Your task to perform on an android device: Google the capital of Mexico Image 0: 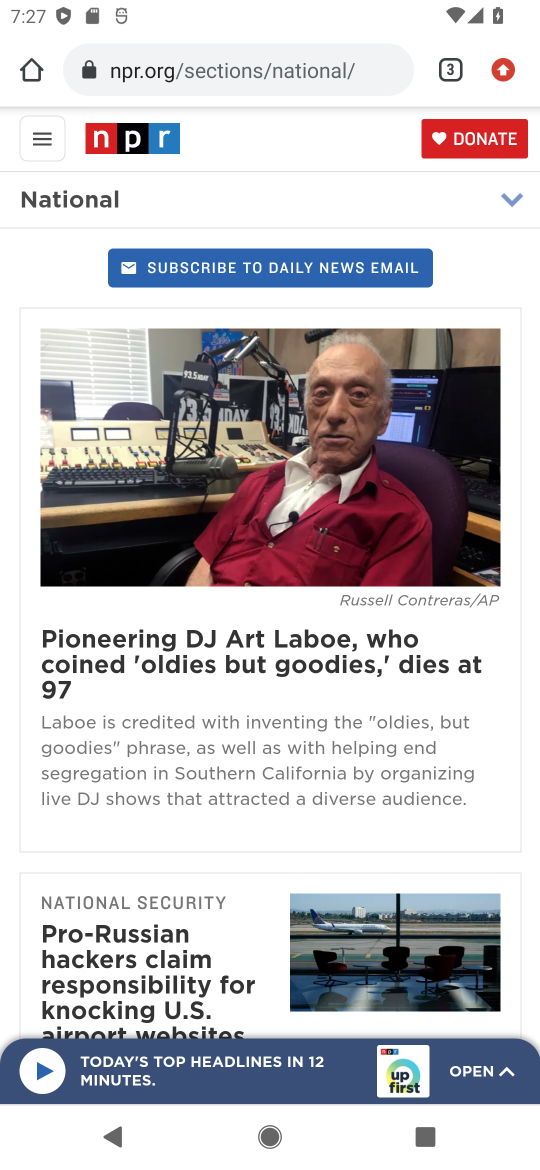
Step 0: press home button
Your task to perform on an android device: Google the capital of Mexico Image 1: 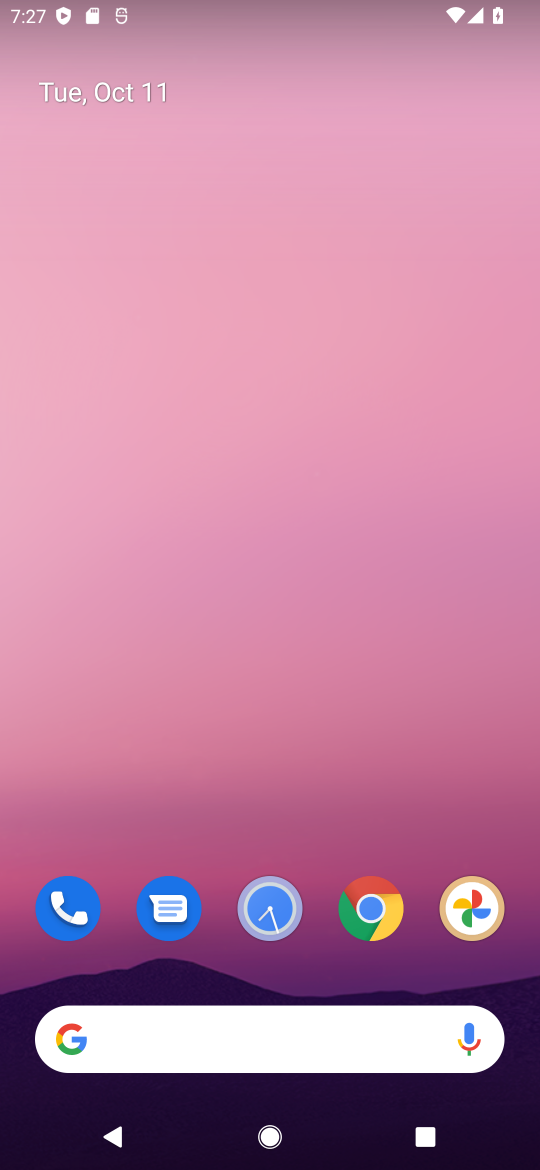
Step 1: click (220, 1031)
Your task to perform on an android device: Google the capital of Mexico Image 2: 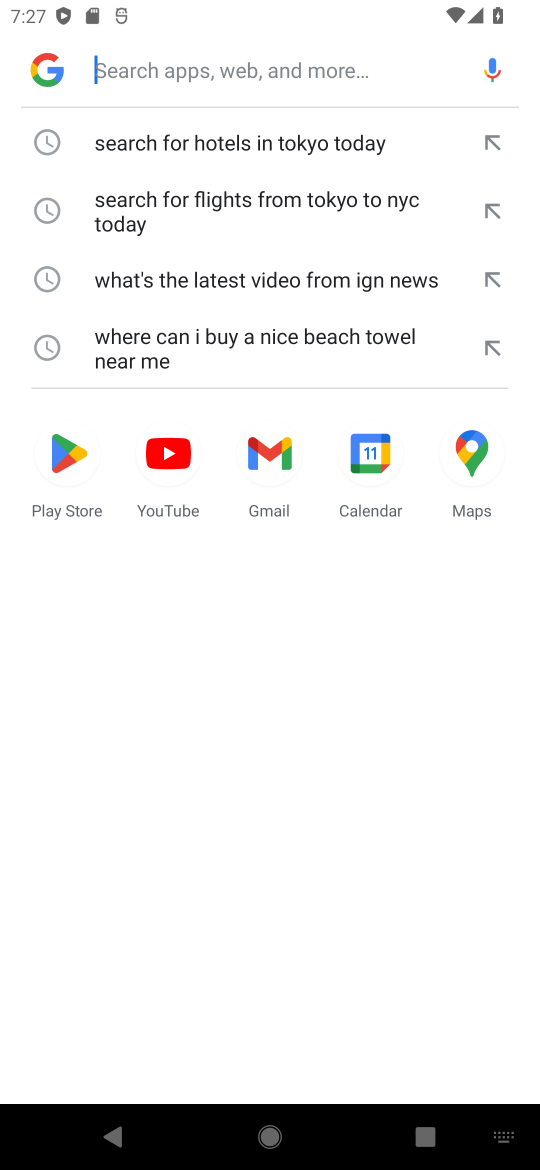
Step 2: type "capital of mexico"
Your task to perform on an android device: Google the capital of Mexico Image 3: 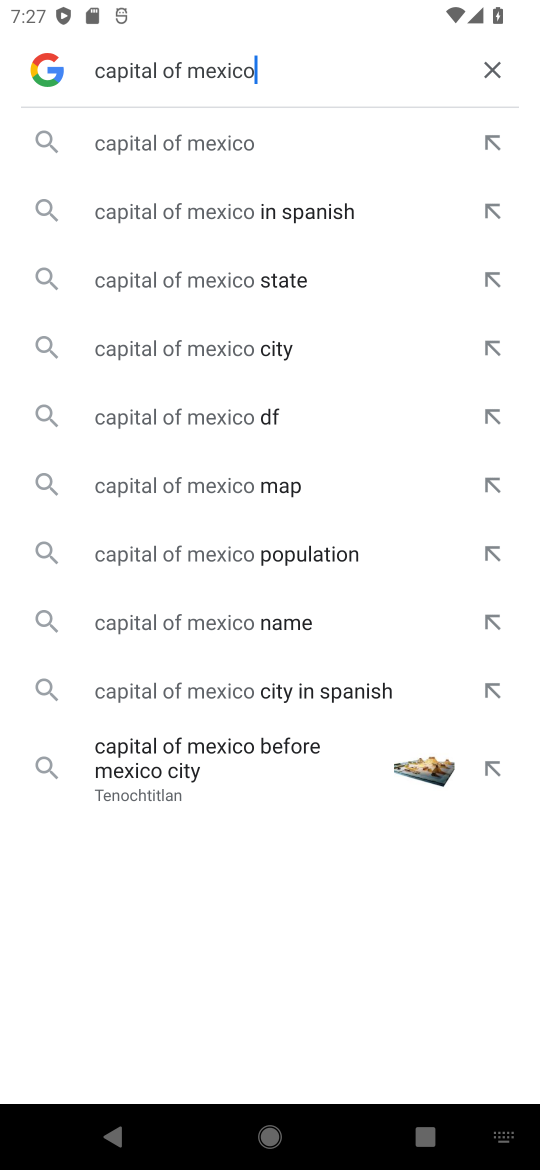
Step 3: click (201, 146)
Your task to perform on an android device: Google the capital of Mexico Image 4: 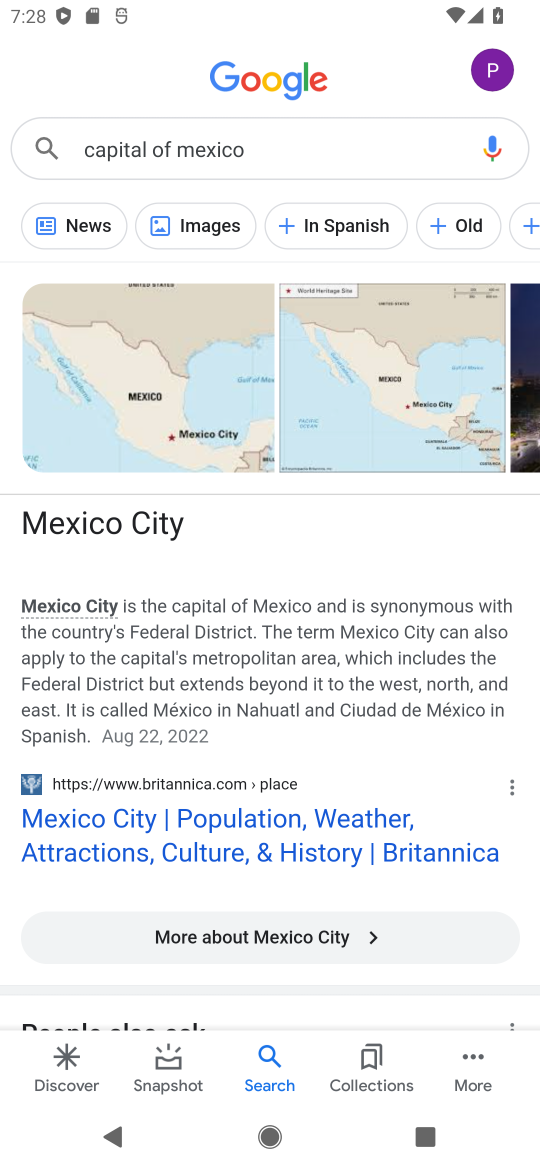
Step 4: task complete